Your task to perform on an android device: delete the emails in spam in the gmail app Image 0: 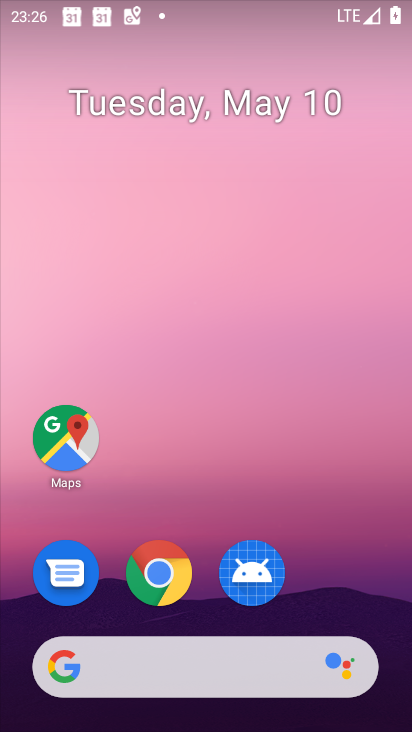
Step 0: drag from (329, 460) to (274, 75)
Your task to perform on an android device: delete the emails in spam in the gmail app Image 1: 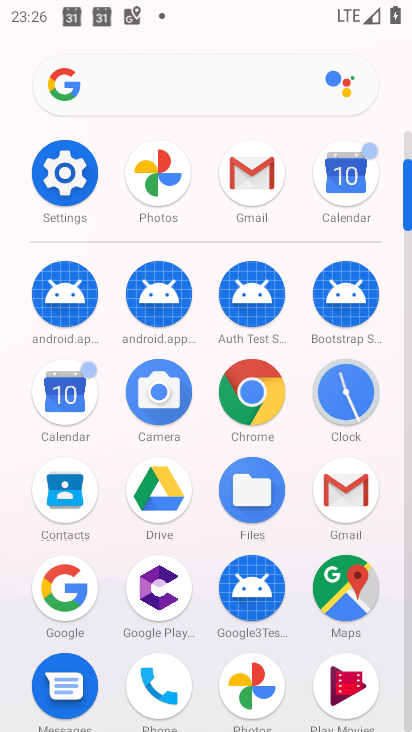
Step 1: click (254, 176)
Your task to perform on an android device: delete the emails in spam in the gmail app Image 2: 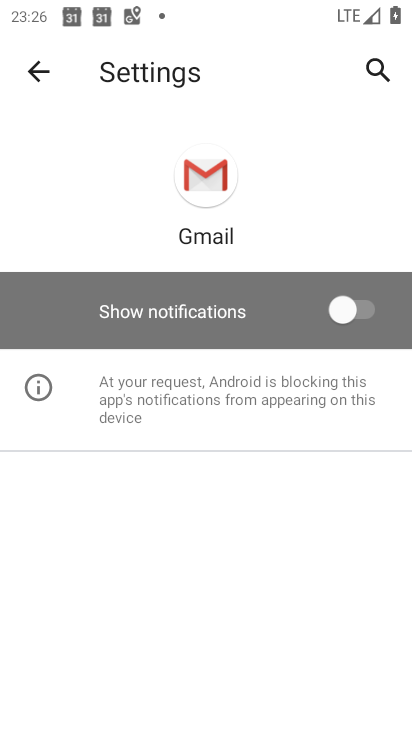
Step 2: click (40, 74)
Your task to perform on an android device: delete the emails in spam in the gmail app Image 3: 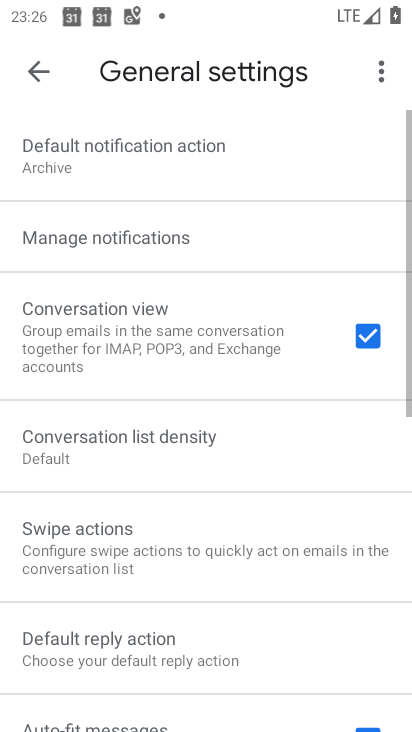
Step 3: click (40, 74)
Your task to perform on an android device: delete the emails in spam in the gmail app Image 4: 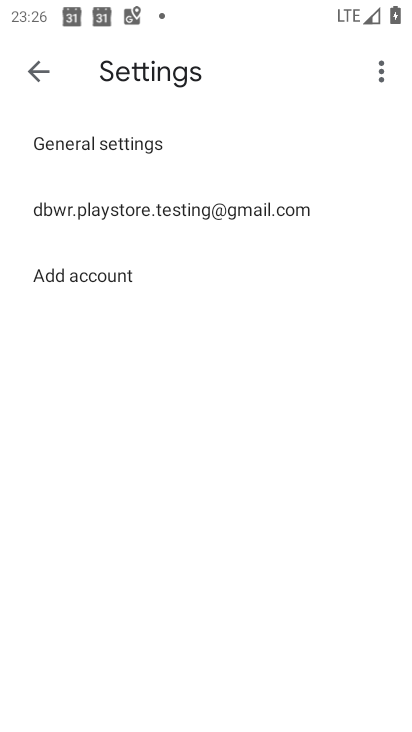
Step 4: click (32, 72)
Your task to perform on an android device: delete the emails in spam in the gmail app Image 5: 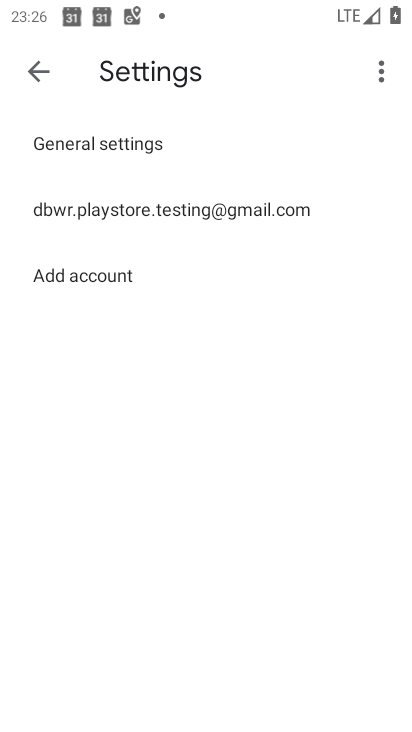
Step 5: click (32, 72)
Your task to perform on an android device: delete the emails in spam in the gmail app Image 6: 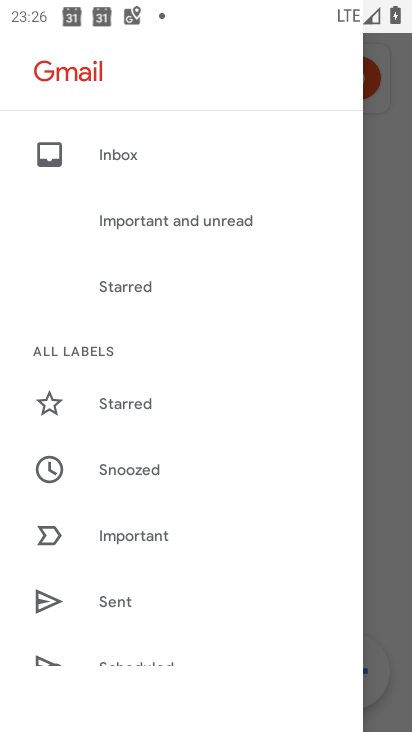
Step 6: click (201, 365)
Your task to perform on an android device: delete the emails in spam in the gmail app Image 7: 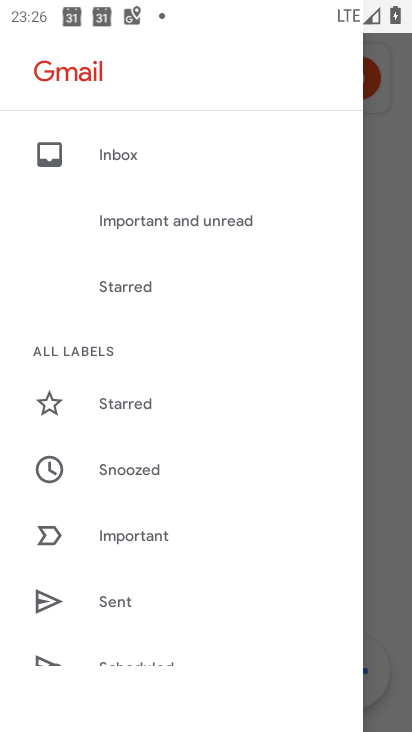
Step 7: drag from (246, 552) to (245, 221)
Your task to perform on an android device: delete the emails in spam in the gmail app Image 8: 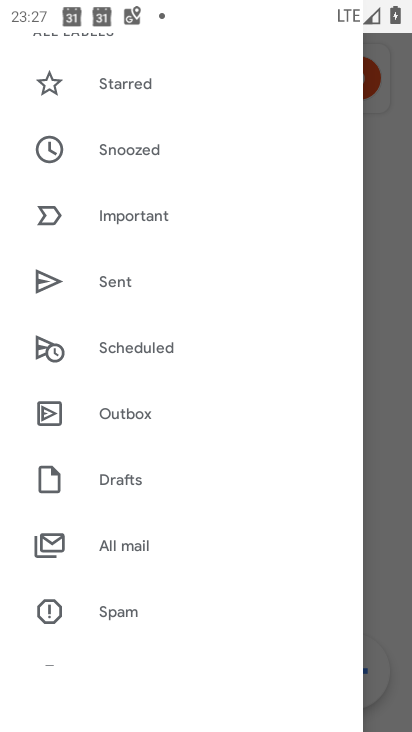
Step 8: click (117, 605)
Your task to perform on an android device: delete the emails in spam in the gmail app Image 9: 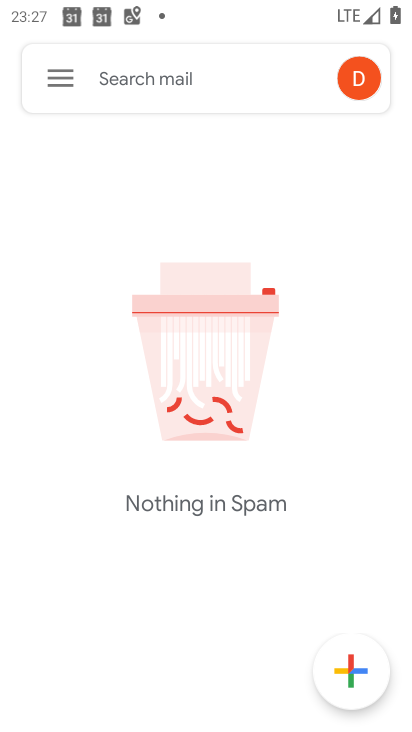
Step 9: task complete